Your task to perform on an android device: Go to Reddit.com Image 0: 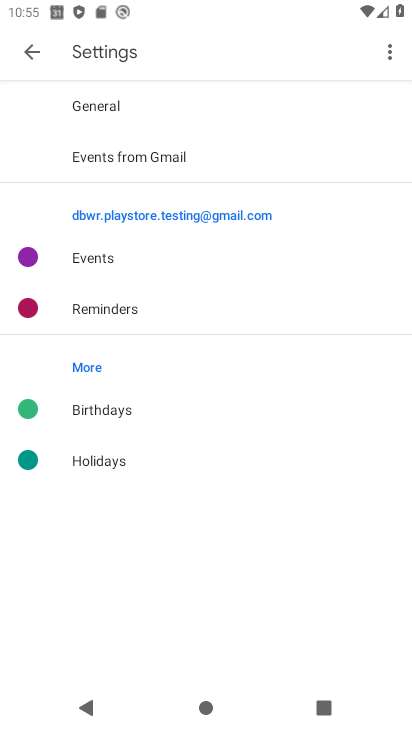
Step 0: press home button
Your task to perform on an android device: Go to Reddit.com Image 1: 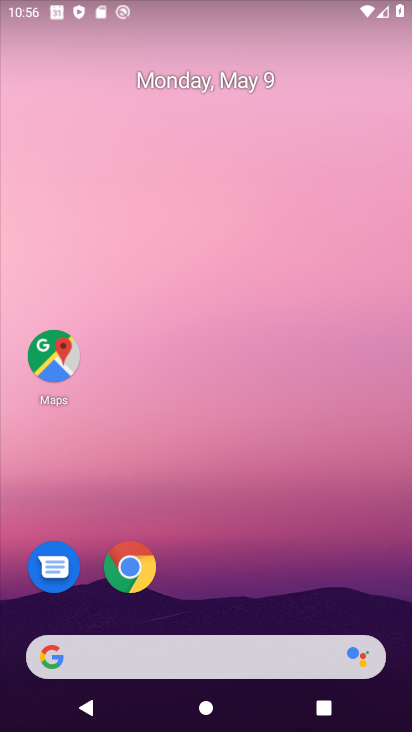
Step 1: click (157, 666)
Your task to perform on an android device: Go to Reddit.com Image 2: 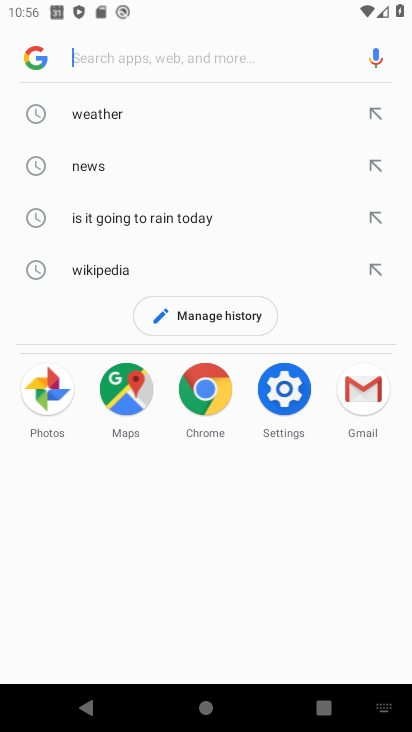
Step 2: type "reddit.com"
Your task to perform on an android device: Go to Reddit.com Image 3: 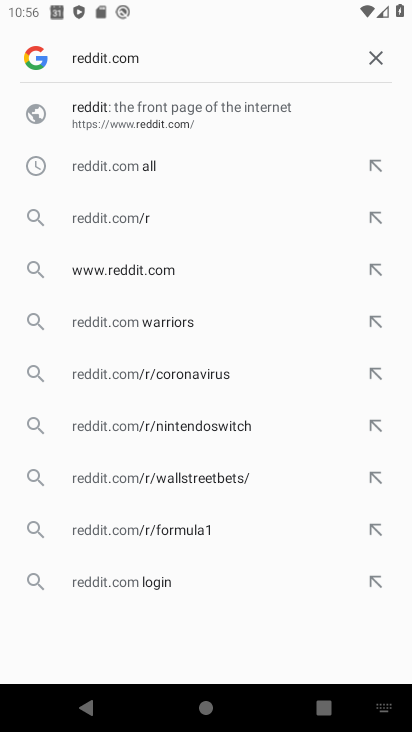
Step 3: click (197, 116)
Your task to perform on an android device: Go to Reddit.com Image 4: 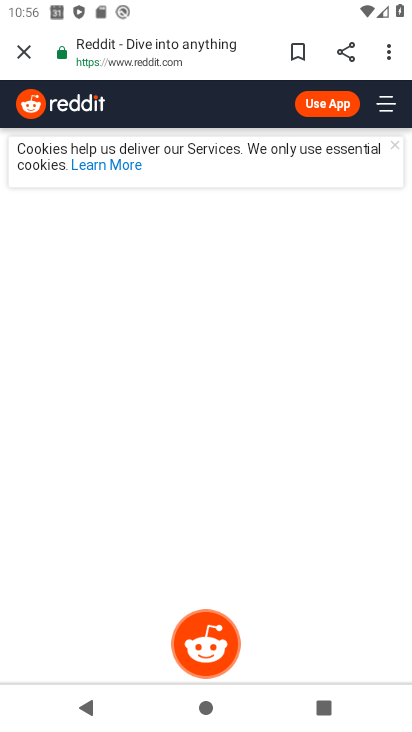
Step 4: task complete